Your task to perform on an android device: Search for "bose soundlink" on amazon.com, select the first entry, and add it to the cart. Image 0: 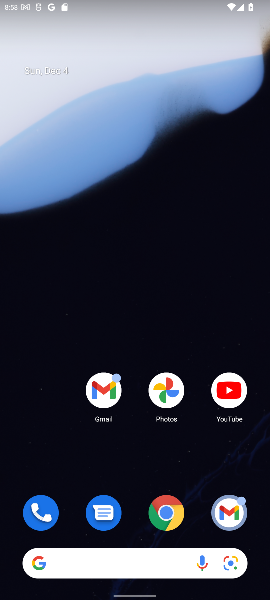
Step 0: click (162, 519)
Your task to perform on an android device: Search for "bose soundlink" on amazon.com, select the first entry, and add it to the cart. Image 1: 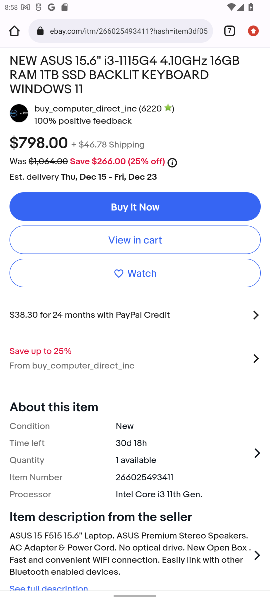
Step 1: click (228, 30)
Your task to perform on an android device: Search for "bose soundlink" on amazon.com, select the first entry, and add it to the cart. Image 2: 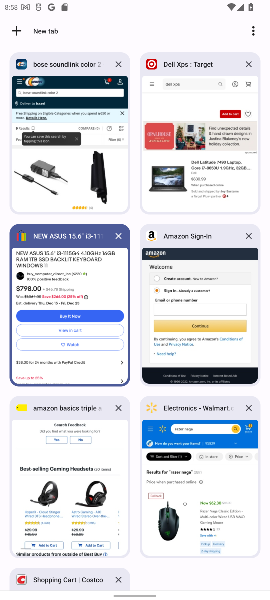
Step 2: click (193, 262)
Your task to perform on an android device: Search for "bose soundlink" on amazon.com, select the first entry, and add it to the cart. Image 3: 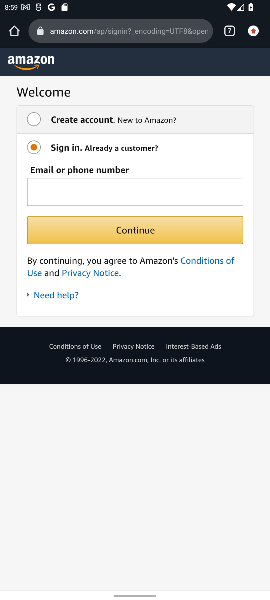
Step 3: press back button
Your task to perform on an android device: Search for "bose soundlink" on amazon.com, select the first entry, and add it to the cart. Image 4: 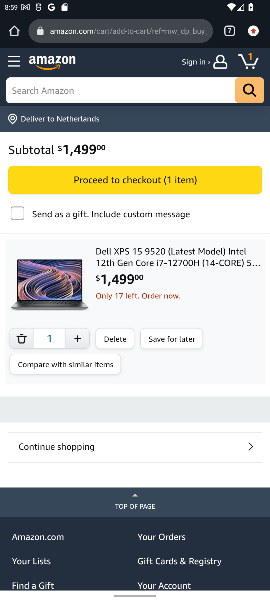
Step 4: click (69, 90)
Your task to perform on an android device: Search for "bose soundlink" on amazon.com, select the first entry, and add it to the cart. Image 5: 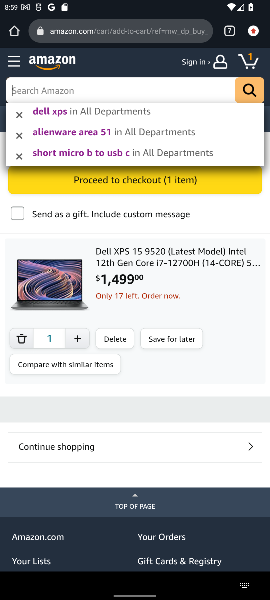
Step 5: type "bose soundlink"
Your task to perform on an android device: Search for "bose soundlink" on amazon.com, select the first entry, and add it to the cart. Image 6: 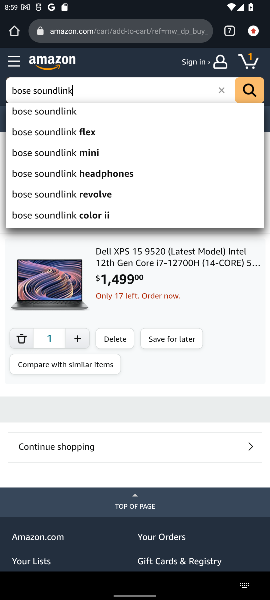
Step 6: click (60, 108)
Your task to perform on an android device: Search for "bose soundlink" on amazon.com, select the first entry, and add it to the cart. Image 7: 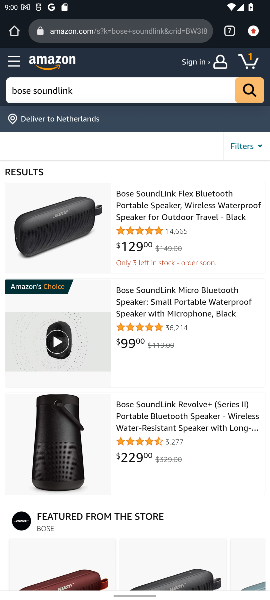
Step 7: click (51, 321)
Your task to perform on an android device: Search for "bose soundlink" on amazon.com, select the first entry, and add it to the cart. Image 8: 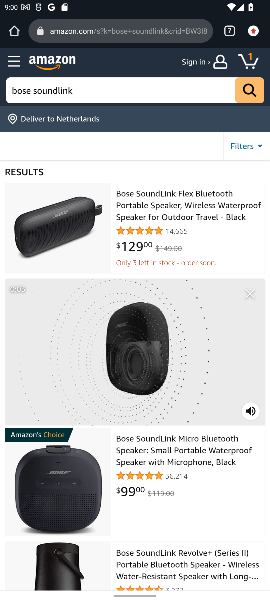
Step 8: click (253, 293)
Your task to perform on an android device: Search for "bose soundlink" on amazon.com, select the first entry, and add it to the cart. Image 9: 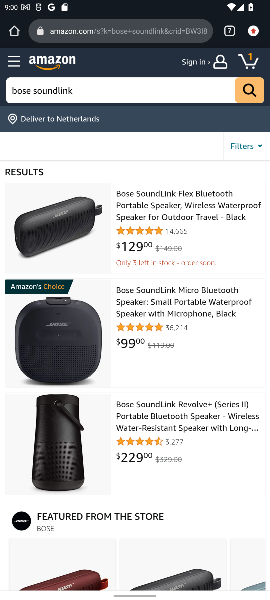
Step 9: click (197, 311)
Your task to perform on an android device: Search for "bose soundlink" on amazon.com, select the first entry, and add it to the cart. Image 10: 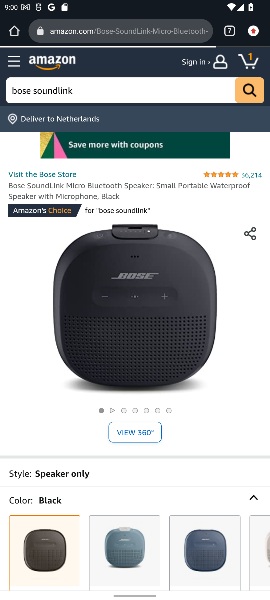
Step 10: drag from (193, 485) to (1, 60)
Your task to perform on an android device: Search for "bose soundlink" on amazon.com, select the first entry, and add it to the cart. Image 11: 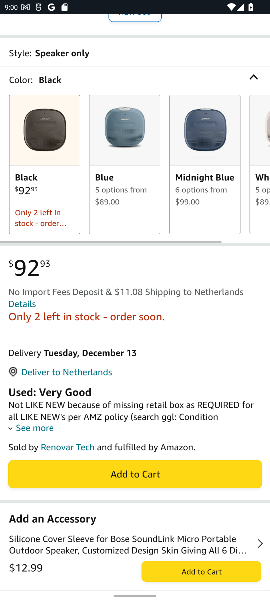
Step 11: click (145, 470)
Your task to perform on an android device: Search for "bose soundlink" on amazon.com, select the first entry, and add it to the cart. Image 12: 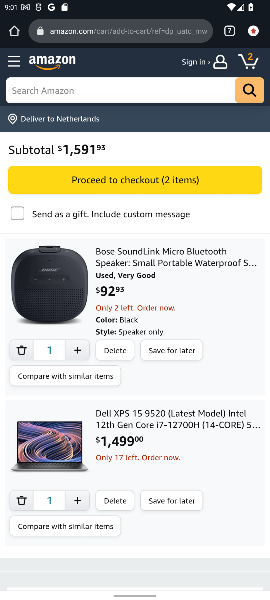
Step 12: task complete